Your task to perform on an android device: Go to Maps Image 0: 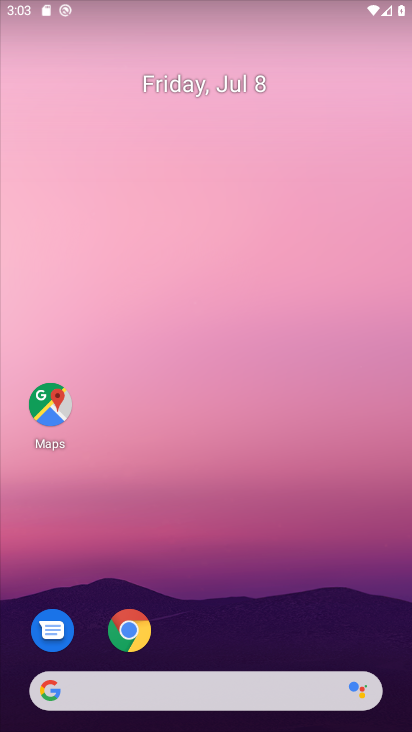
Step 0: click (175, 133)
Your task to perform on an android device: Go to Maps Image 1: 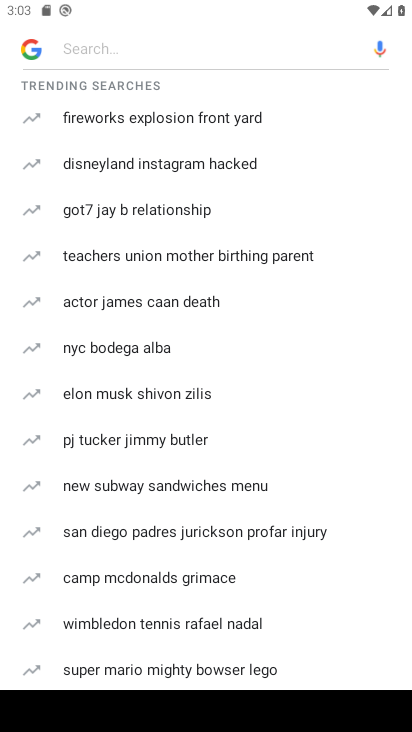
Step 1: press back button
Your task to perform on an android device: Go to Maps Image 2: 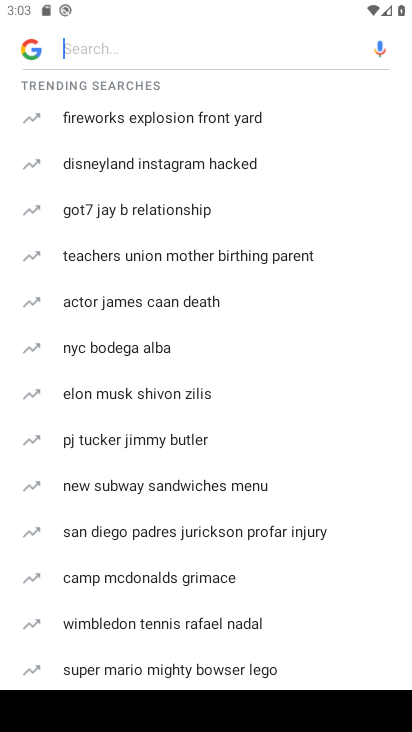
Step 2: press back button
Your task to perform on an android device: Go to Maps Image 3: 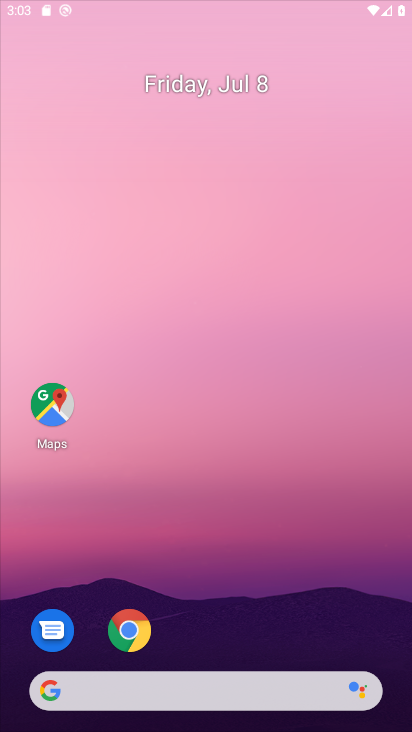
Step 3: press back button
Your task to perform on an android device: Go to Maps Image 4: 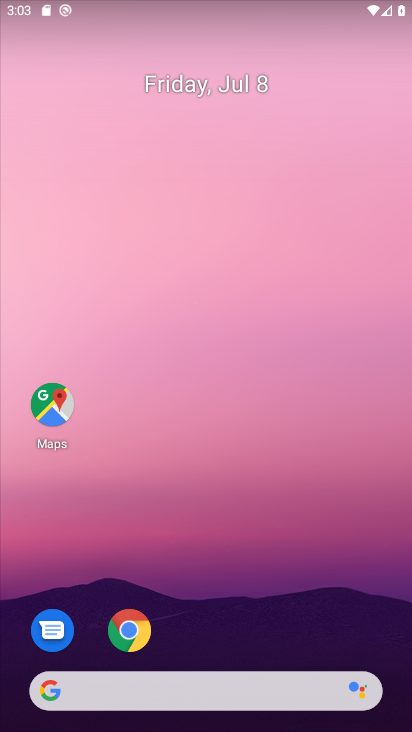
Step 4: drag from (245, 577) to (64, 91)
Your task to perform on an android device: Go to Maps Image 5: 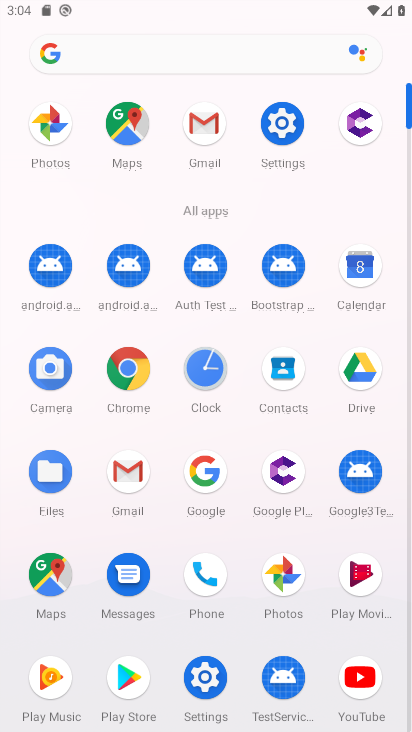
Step 5: click (54, 553)
Your task to perform on an android device: Go to Maps Image 6: 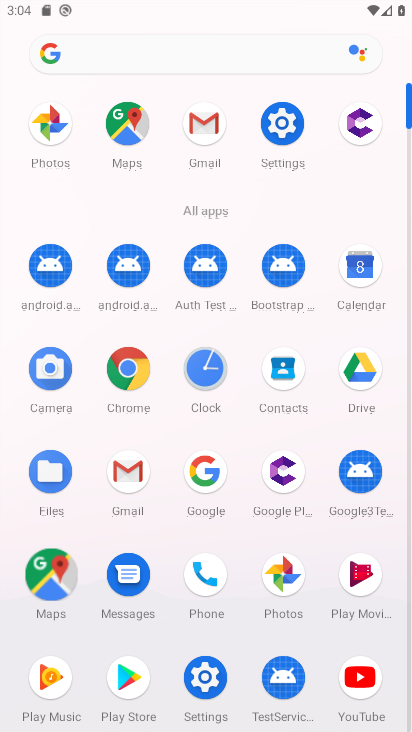
Step 6: click (54, 564)
Your task to perform on an android device: Go to Maps Image 7: 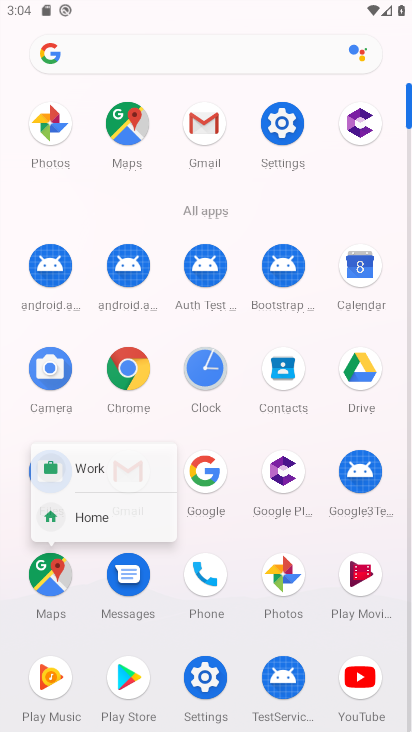
Step 7: click (58, 564)
Your task to perform on an android device: Go to Maps Image 8: 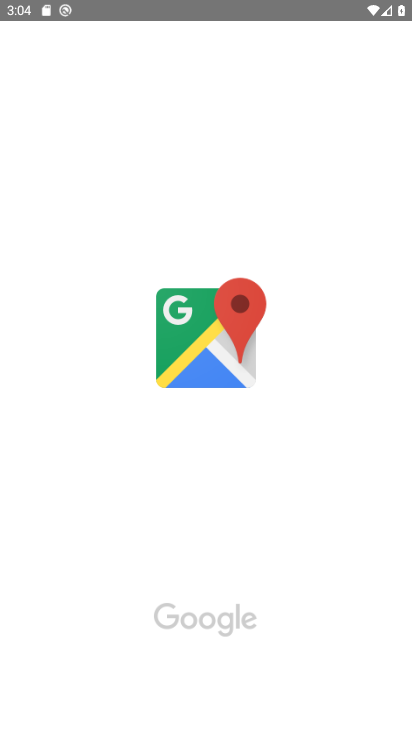
Step 8: click (194, 345)
Your task to perform on an android device: Go to Maps Image 9: 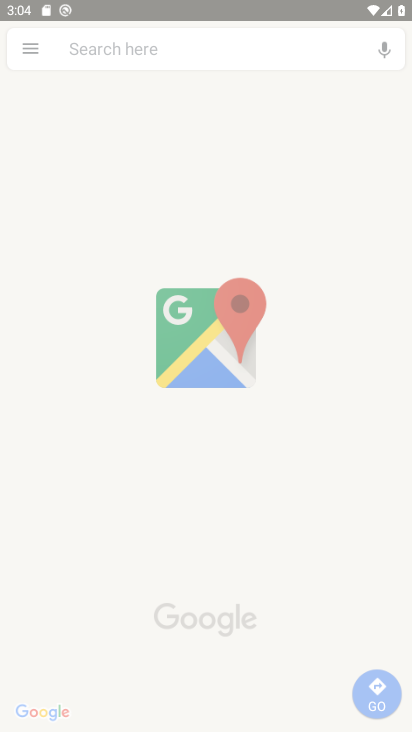
Step 9: click (189, 341)
Your task to perform on an android device: Go to Maps Image 10: 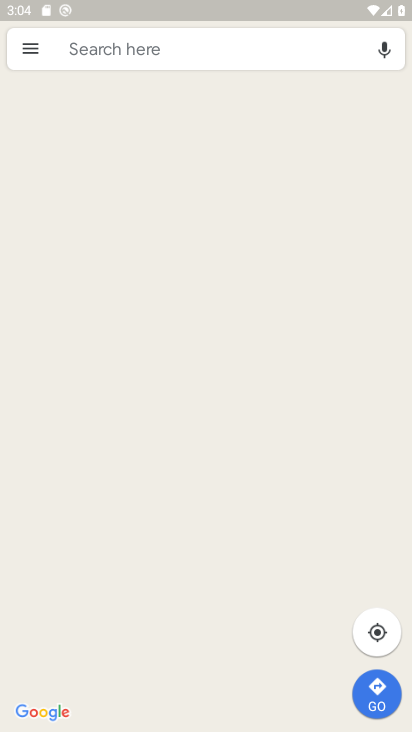
Step 10: click (189, 339)
Your task to perform on an android device: Go to Maps Image 11: 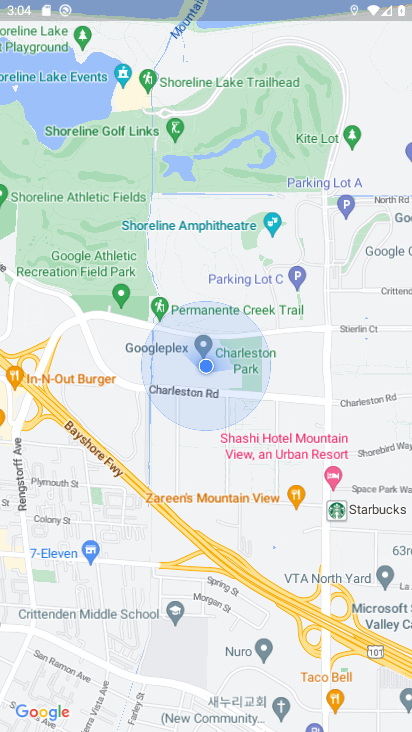
Step 11: task complete